Your task to perform on an android device: turn on improve location accuracy Image 0: 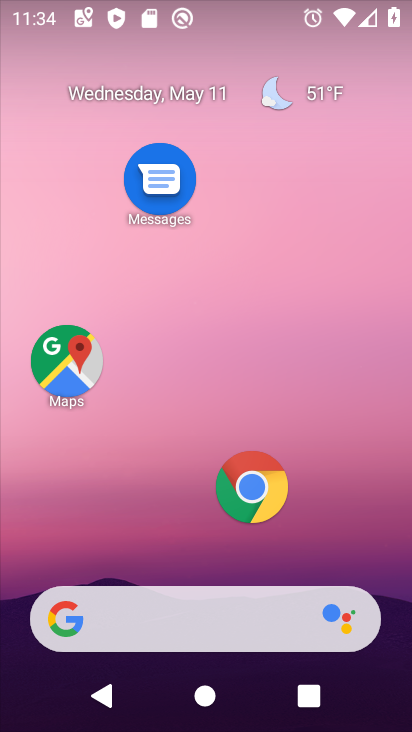
Step 0: drag from (189, 543) to (242, 204)
Your task to perform on an android device: turn on improve location accuracy Image 1: 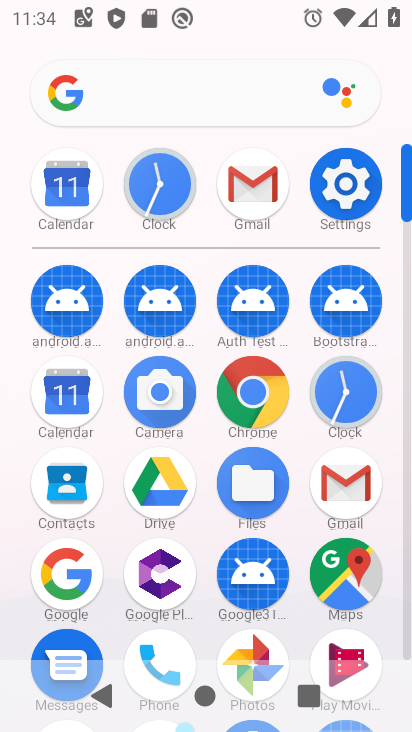
Step 1: click (331, 163)
Your task to perform on an android device: turn on improve location accuracy Image 2: 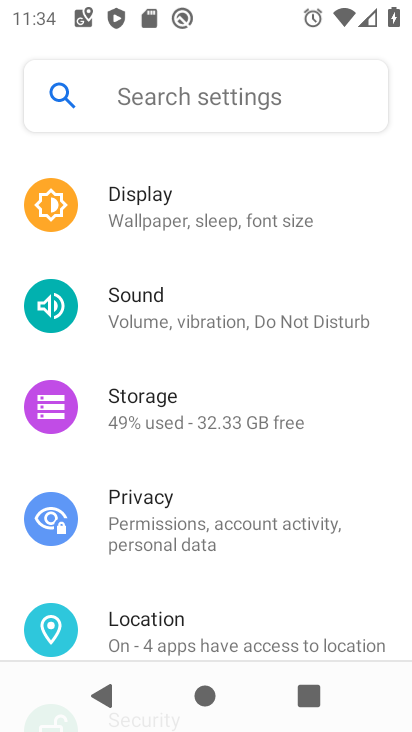
Step 2: click (199, 628)
Your task to perform on an android device: turn on improve location accuracy Image 3: 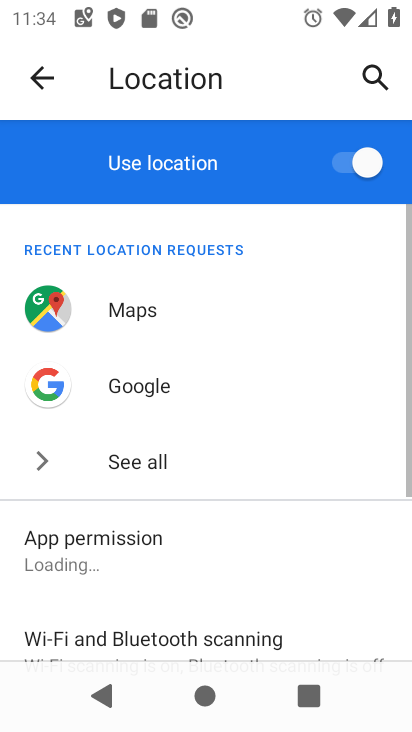
Step 3: drag from (202, 579) to (273, 252)
Your task to perform on an android device: turn on improve location accuracy Image 4: 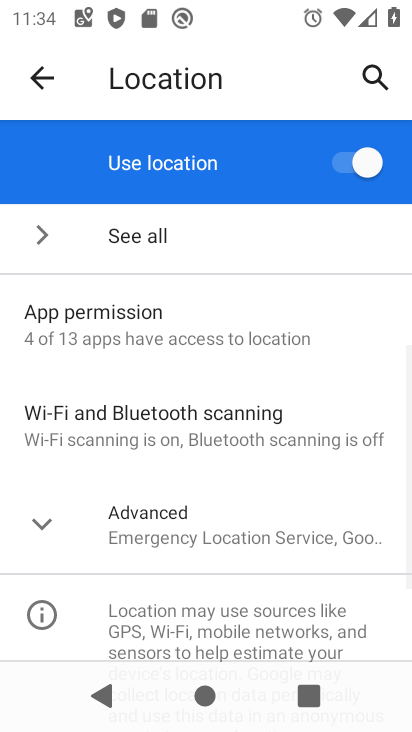
Step 4: click (229, 527)
Your task to perform on an android device: turn on improve location accuracy Image 5: 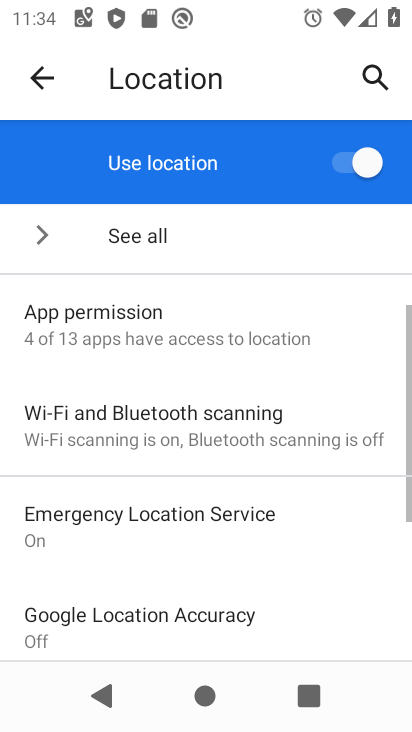
Step 5: drag from (254, 564) to (304, 293)
Your task to perform on an android device: turn on improve location accuracy Image 6: 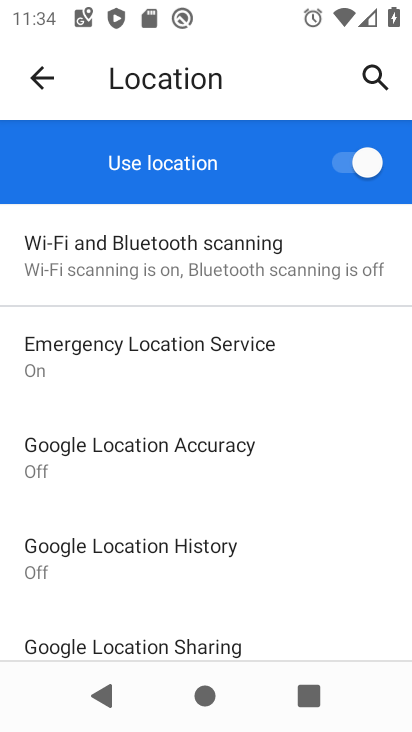
Step 6: click (267, 462)
Your task to perform on an android device: turn on improve location accuracy Image 7: 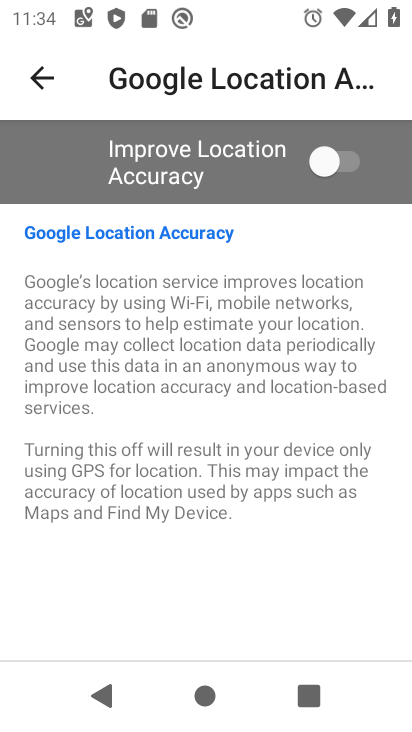
Step 7: click (352, 165)
Your task to perform on an android device: turn on improve location accuracy Image 8: 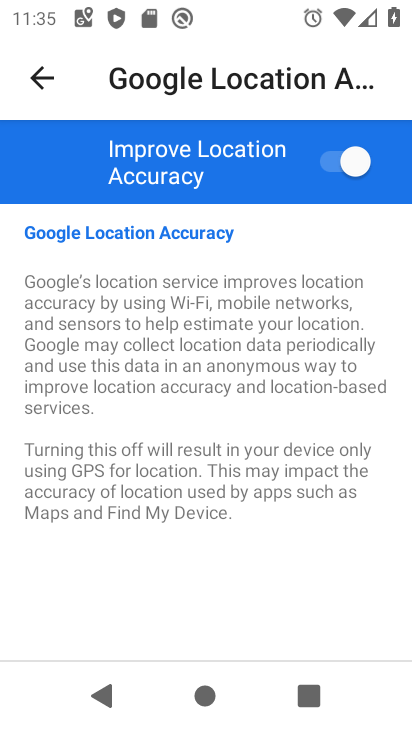
Step 8: task complete